Your task to perform on an android device: turn on improve location accuracy Image 0: 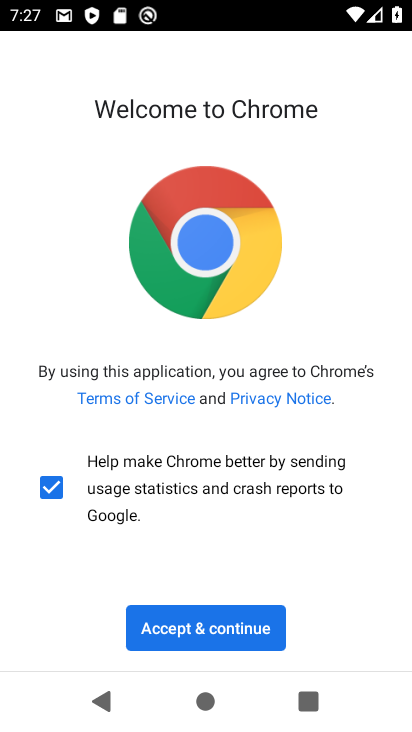
Step 0: press home button
Your task to perform on an android device: turn on improve location accuracy Image 1: 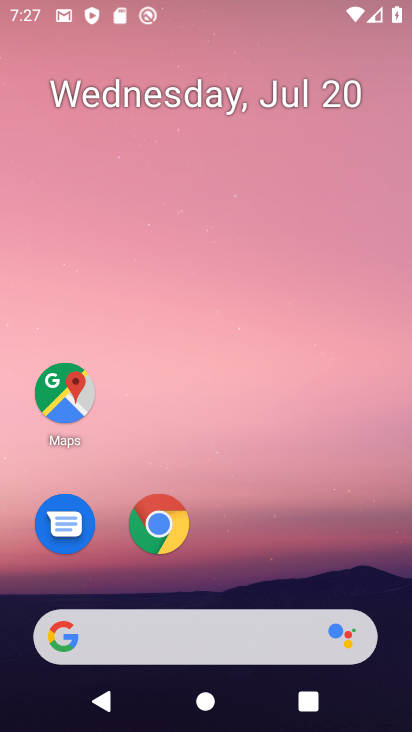
Step 1: drag from (162, 640) to (265, 89)
Your task to perform on an android device: turn on improve location accuracy Image 2: 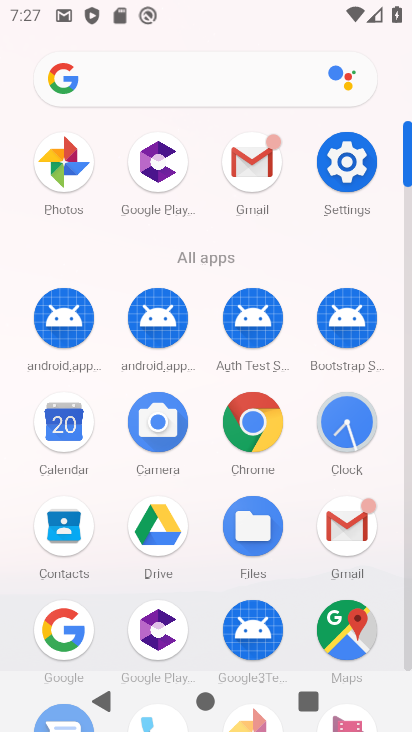
Step 2: click (363, 173)
Your task to perform on an android device: turn on improve location accuracy Image 3: 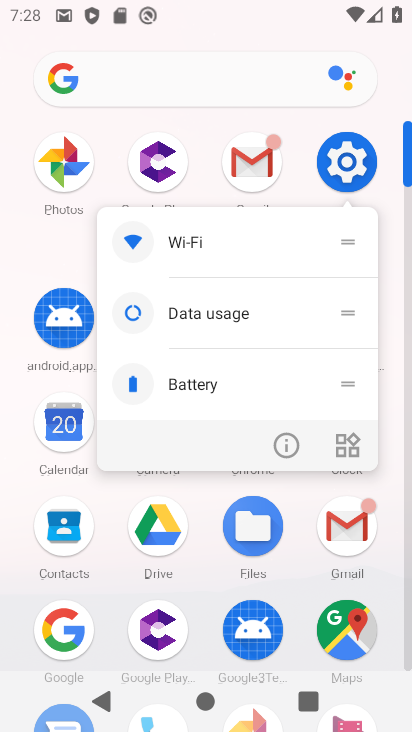
Step 3: click (351, 161)
Your task to perform on an android device: turn on improve location accuracy Image 4: 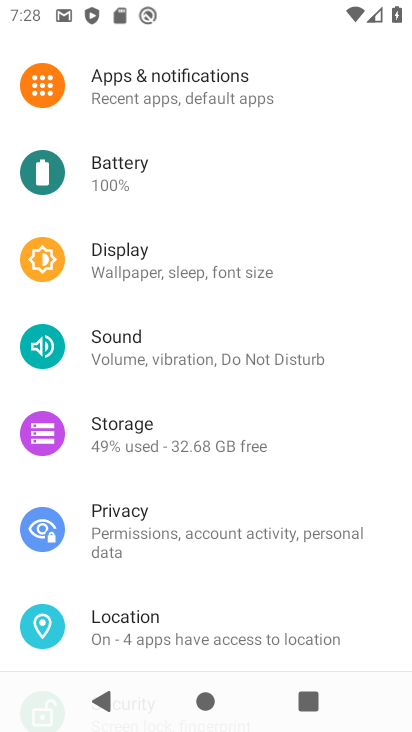
Step 4: click (128, 625)
Your task to perform on an android device: turn on improve location accuracy Image 5: 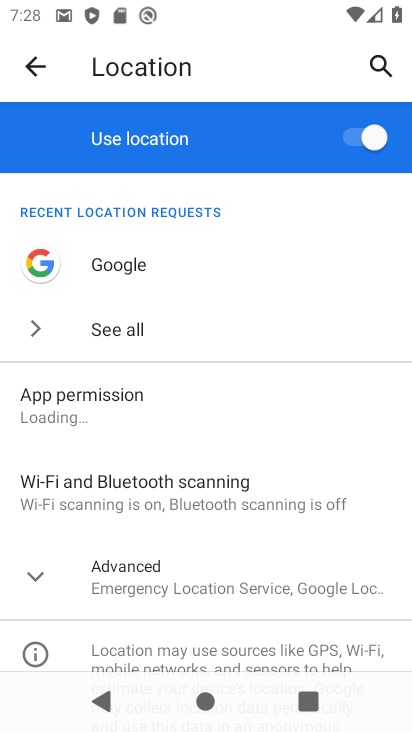
Step 5: click (151, 572)
Your task to perform on an android device: turn on improve location accuracy Image 6: 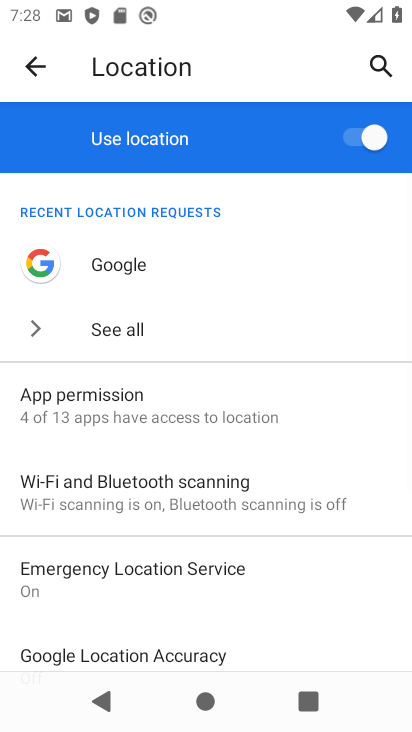
Step 6: drag from (197, 598) to (271, 320)
Your task to perform on an android device: turn on improve location accuracy Image 7: 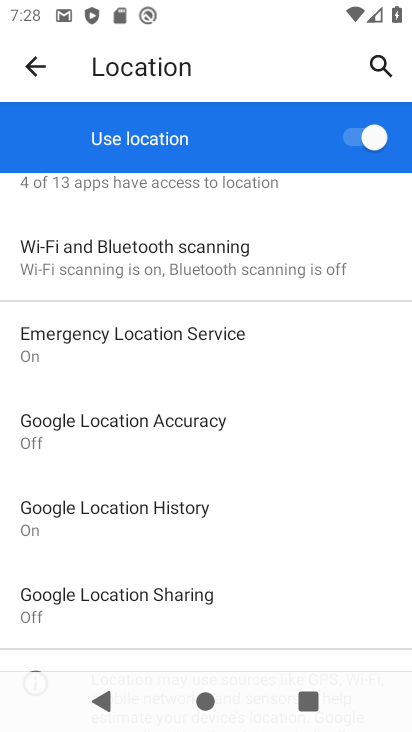
Step 7: click (116, 431)
Your task to perform on an android device: turn on improve location accuracy Image 8: 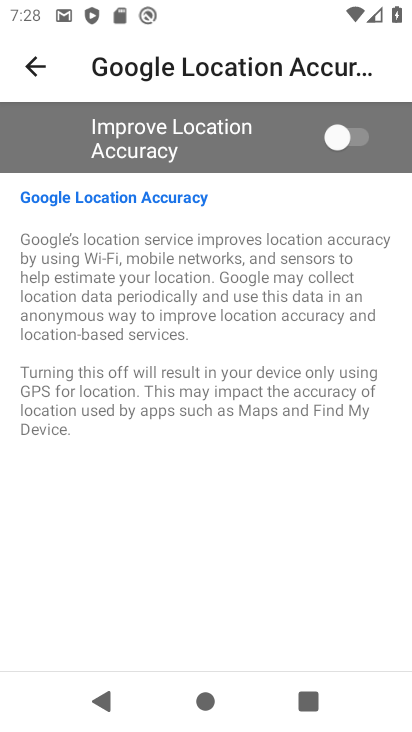
Step 8: click (357, 131)
Your task to perform on an android device: turn on improve location accuracy Image 9: 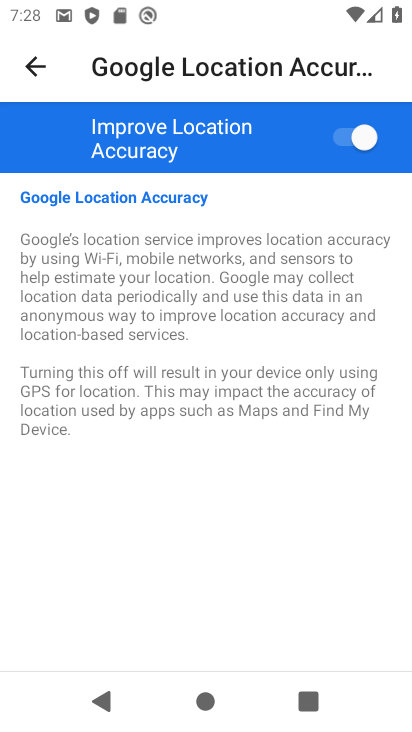
Step 9: task complete